Your task to perform on an android device: turn vacation reply on in the gmail app Image 0: 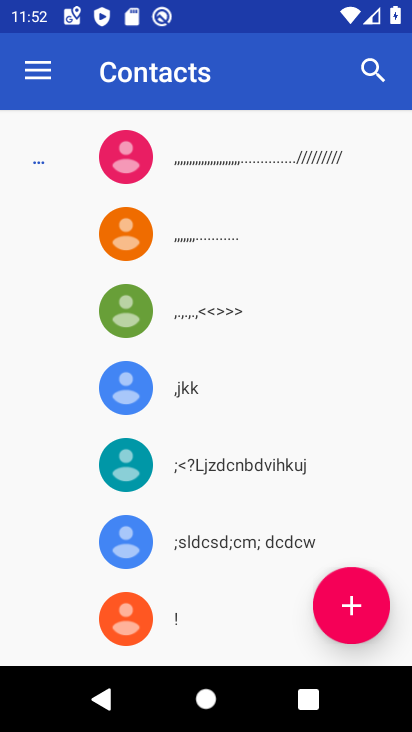
Step 0: press home button
Your task to perform on an android device: turn vacation reply on in the gmail app Image 1: 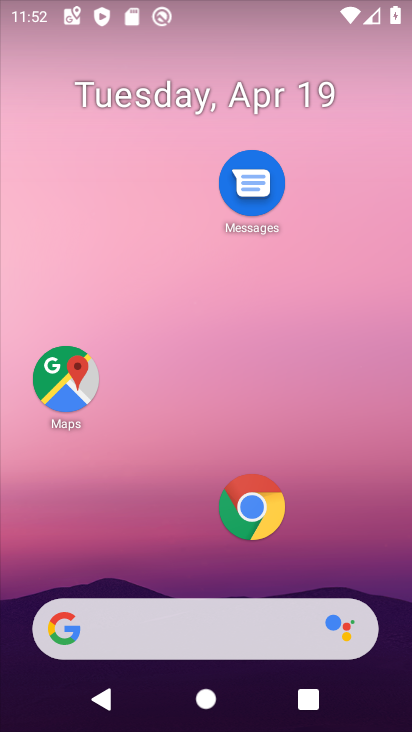
Step 1: drag from (160, 532) to (296, 20)
Your task to perform on an android device: turn vacation reply on in the gmail app Image 2: 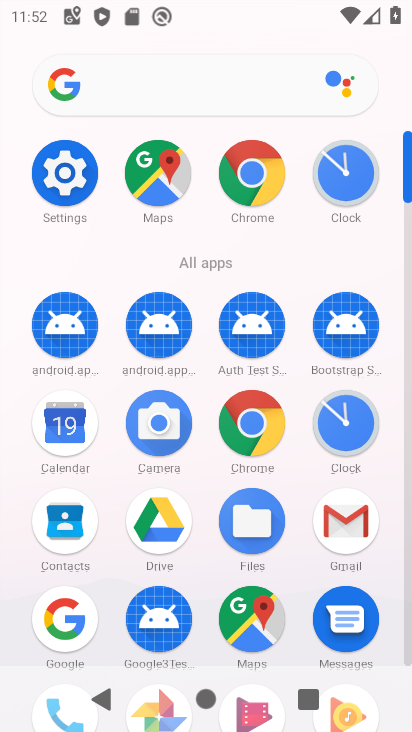
Step 2: click (349, 519)
Your task to perform on an android device: turn vacation reply on in the gmail app Image 3: 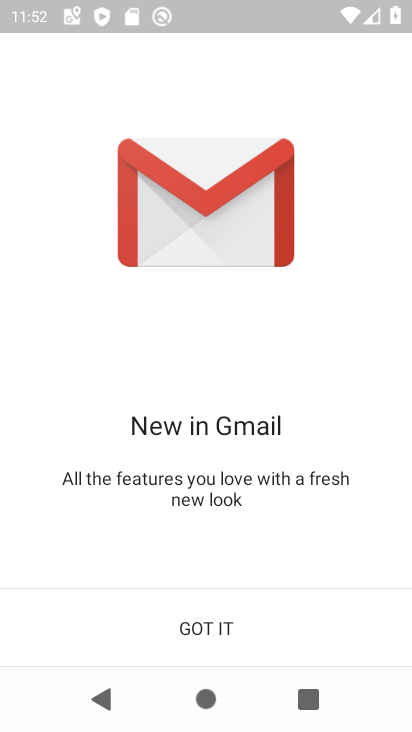
Step 3: click (226, 628)
Your task to perform on an android device: turn vacation reply on in the gmail app Image 4: 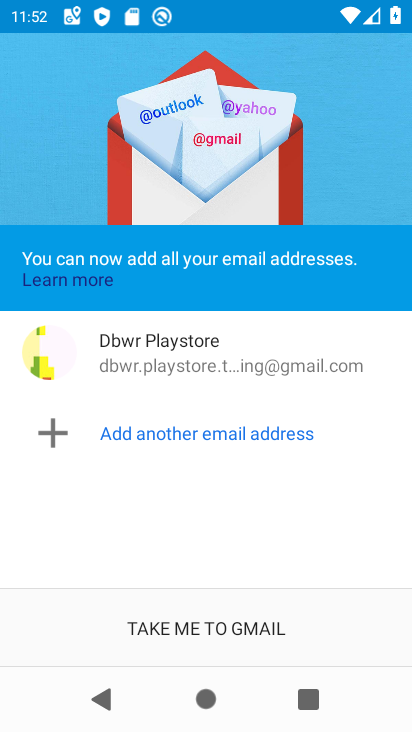
Step 4: click (226, 628)
Your task to perform on an android device: turn vacation reply on in the gmail app Image 5: 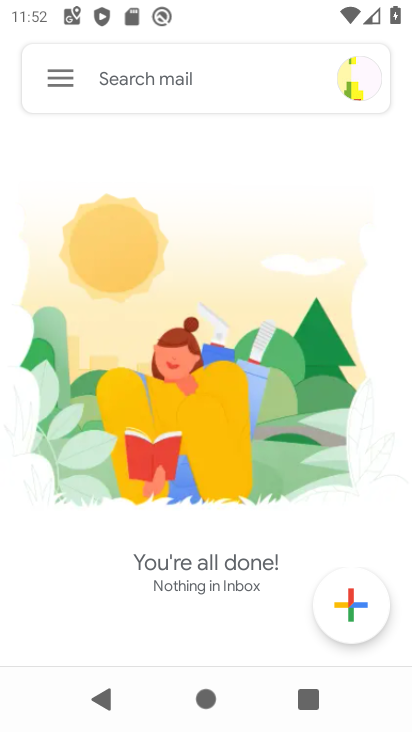
Step 5: click (58, 79)
Your task to perform on an android device: turn vacation reply on in the gmail app Image 6: 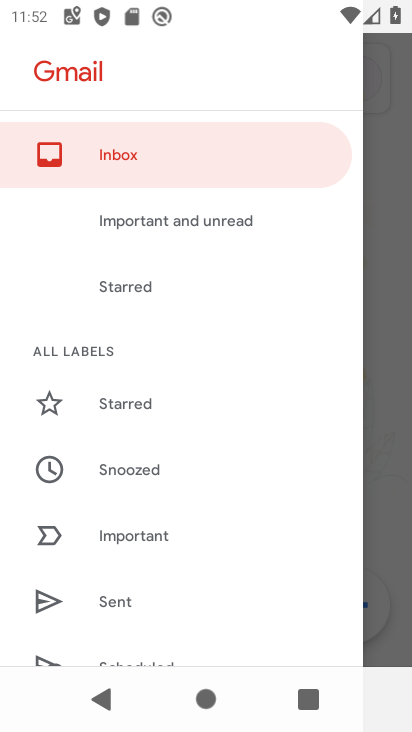
Step 6: drag from (176, 581) to (254, 415)
Your task to perform on an android device: turn vacation reply on in the gmail app Image 7: 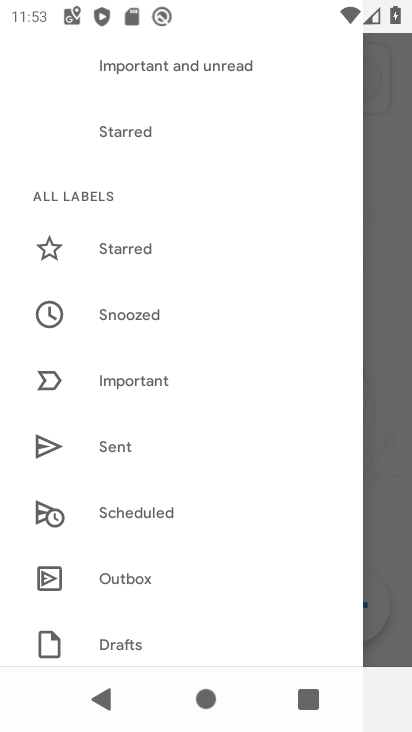
Step 7: drag from (219, 541) to (231, 405)
Your task to perform on an android device: turn vacation reply on in the gmail app Image 8: 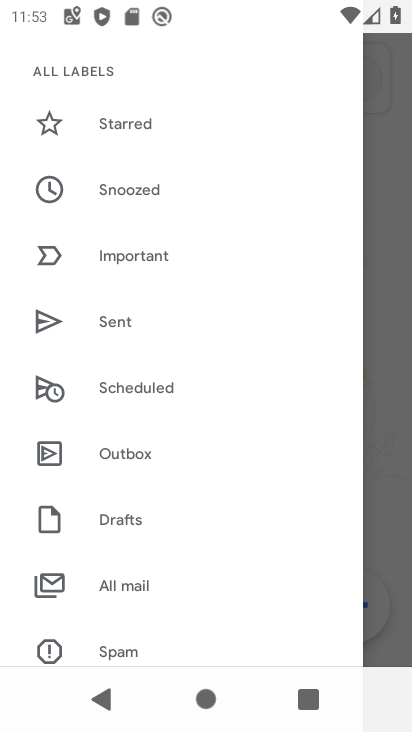
Step 8: drag from (188, 524) to (233, 380)
Your task to perform on an android device: turn vacation reply on in the gmail app Image 9: 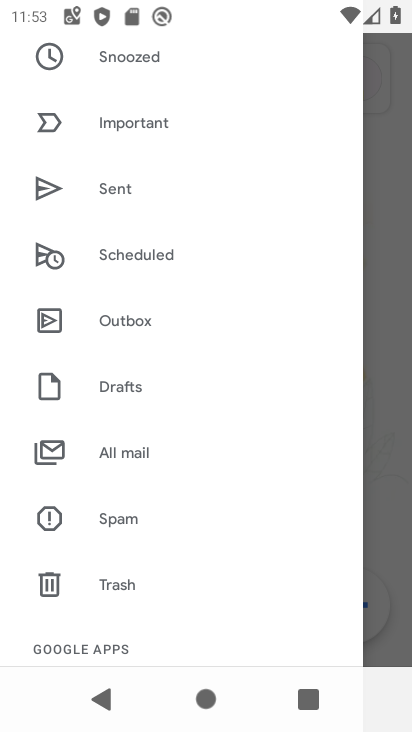
Step 9: drag from (171, 531) to (218, 405)
Your task to perform on an android device: turn vacation reply on in the gmail app Image 10: 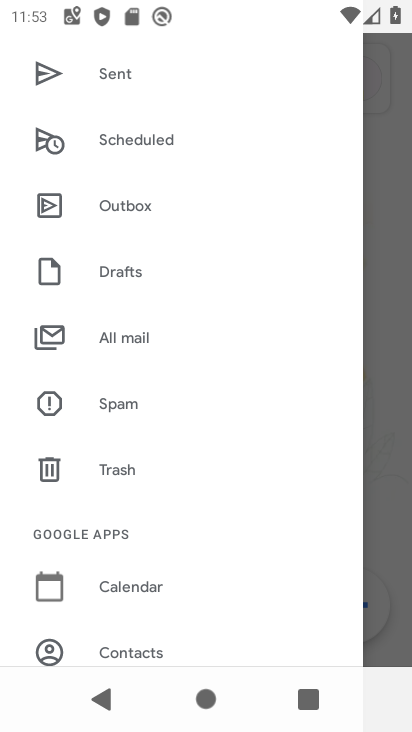
Step 10: drag from (168, 523) to (227, 414)
Your task to perform on an android device: turn vacation reply on in the gmail app Image 11: 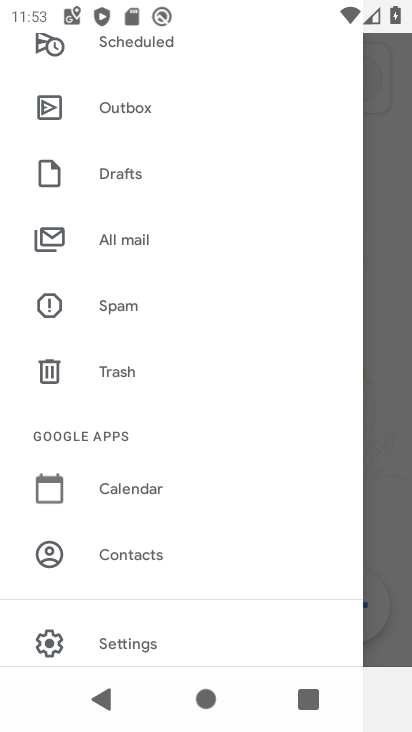
Step 11: click (137, 645)
Your task to perform on an android device: turn vacation reply on in the gmail app Image 12: 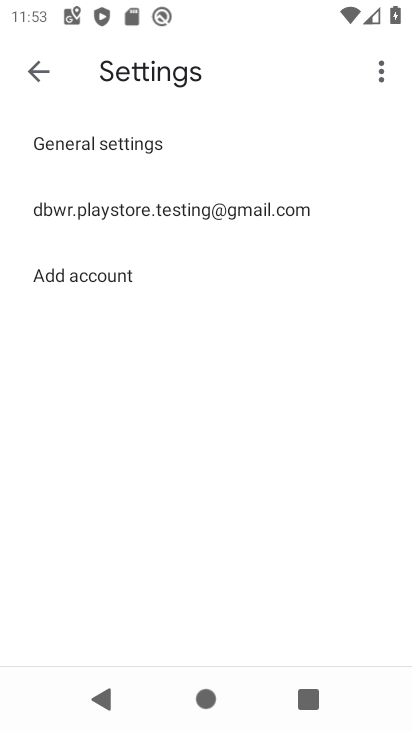
Step 12: click (156, 216)
Your task to perform on an android device: turn vacation reply on in the gmail app Image 13: 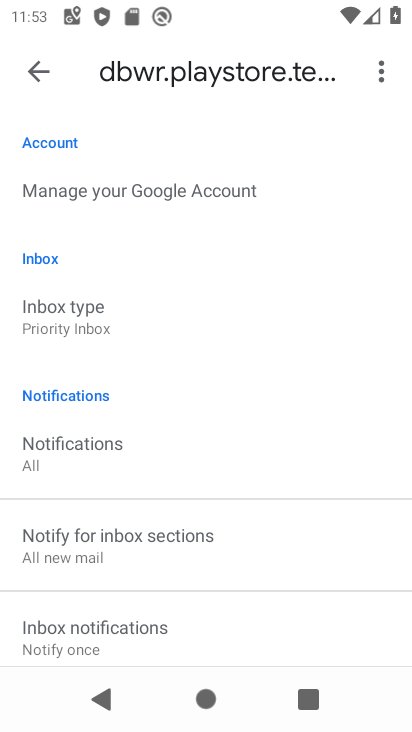
Step 13: drag from (208, 570) to (256, 430)
Your task to perform on an android device: turn vacation reply on in the gmail app Image 14: 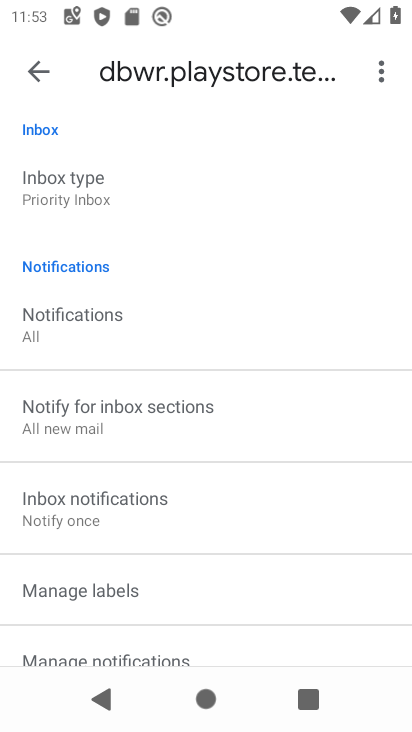
Step 14: drag from (199, 519) to (223, 435)
Your task to perform on an android device: turn vacation reply on in the gmail app Image 15: 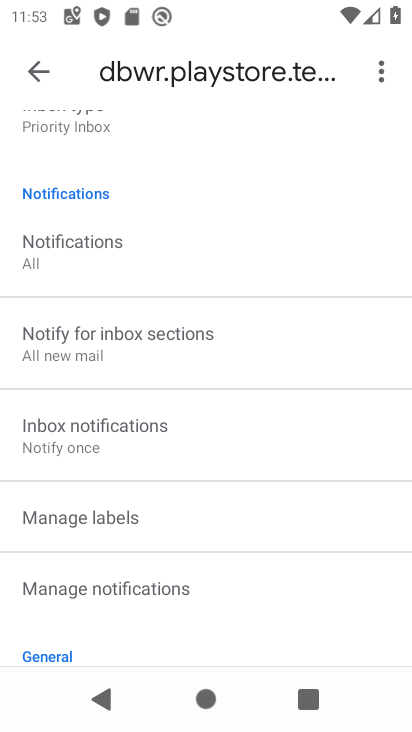
Step 15: drag from (200, 598) to (283, 498)
Your task to perform on an android device: turn vacation reply on in the gmail app Image 16: 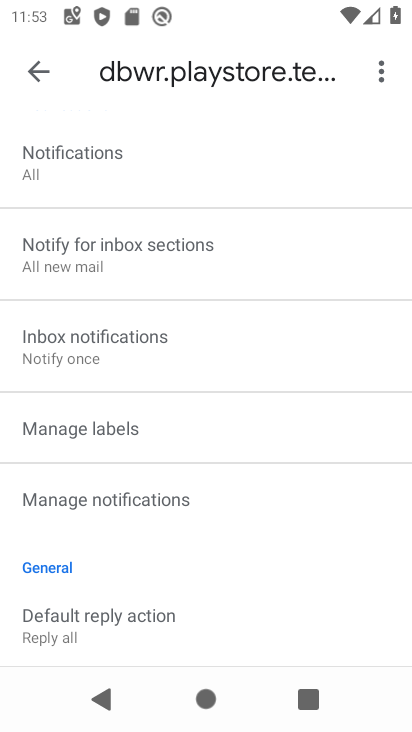
Step 16: drag from (222, 565) to (251, 501)
Your task to perform on an android device: turn vacation reply on in the gmail app Image 17: 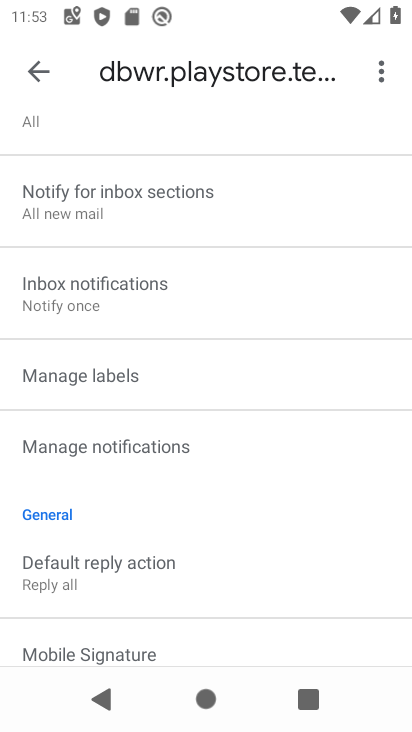
Step 17: drag from (206, 561) to (231, 487)
Your task to perform on an android device: turn vacation reply on in the gmail app Image 18: 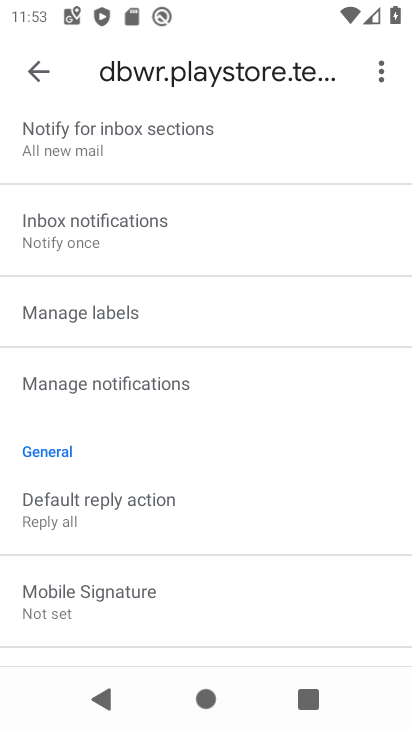
Step 18: drag from (222, 599) to (256, 503)
Your task to perform on an android device: turn vacation reply on in the gmail app Image 19: 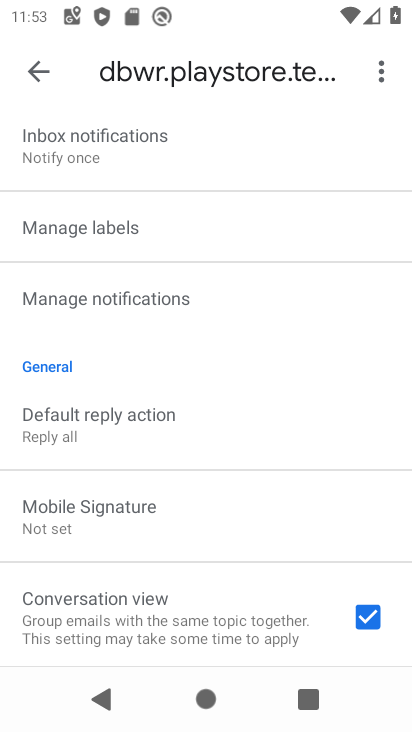
Step 19: drag from (222, 559) to (246, 508)
Your task to perform on an android device: turn vacation reply on in the gmail app Image 20: 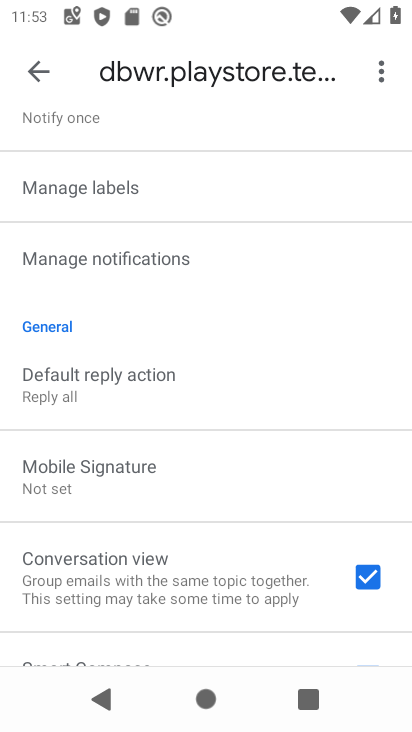
Step 20: drag from (212, 633) to (246, 522)
Your task to perform on an android device: turn vacation reply on in the gmail app Image 21: 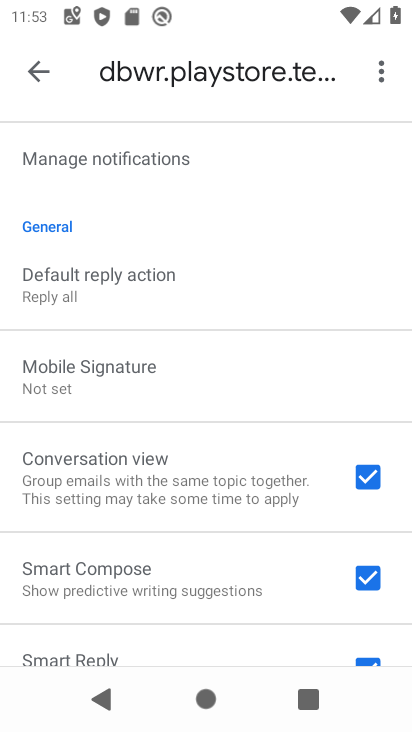
Step 21: drag from (225, 561) to (264, 467)
Your task to perform on an android device: turn vacation reply on in the gmail app Image 22: 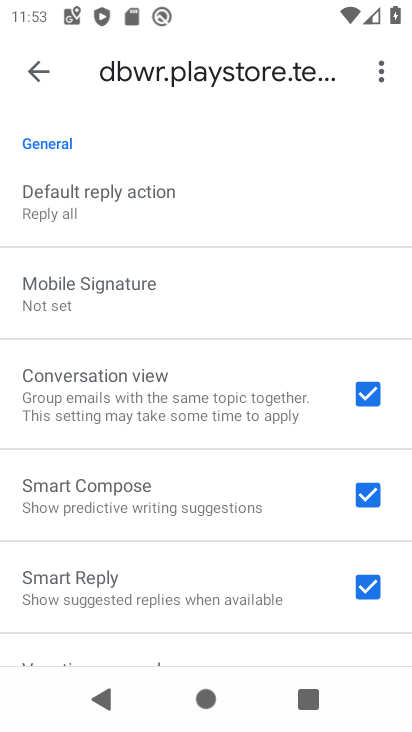
Step 22: drag from (221, 587) to (275, 468)
Your task to perform on an android device: turn vacation reply on in the gmail app Image 23: 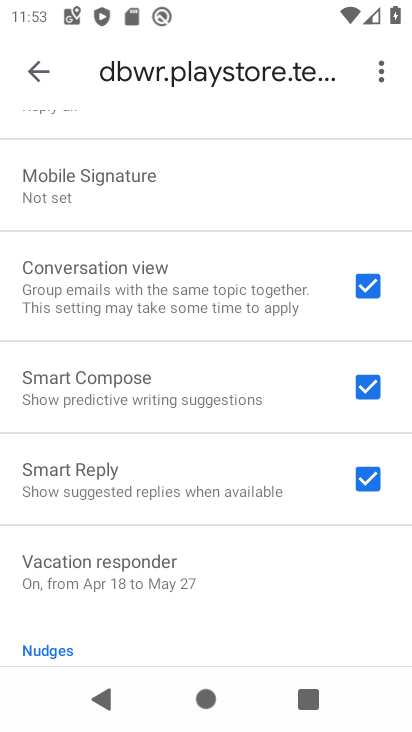
Step 23: click (158, 575)
Your task to perform on an android device: turn vacation reply on in the gmail app Image 24: 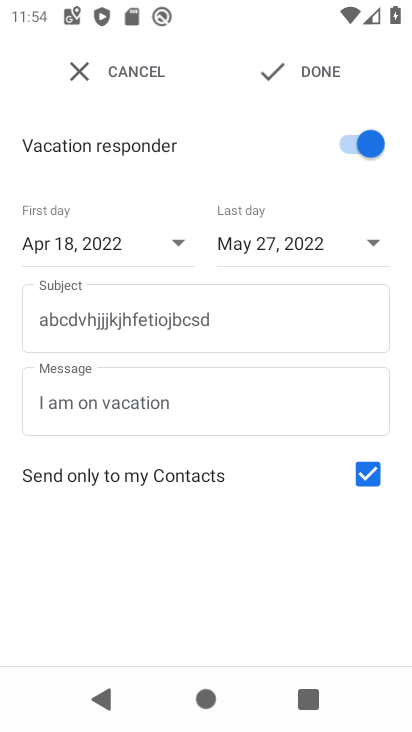
Step 24: task complete